Your task to perform on an android device: toggle improve location accuracy Image 0: 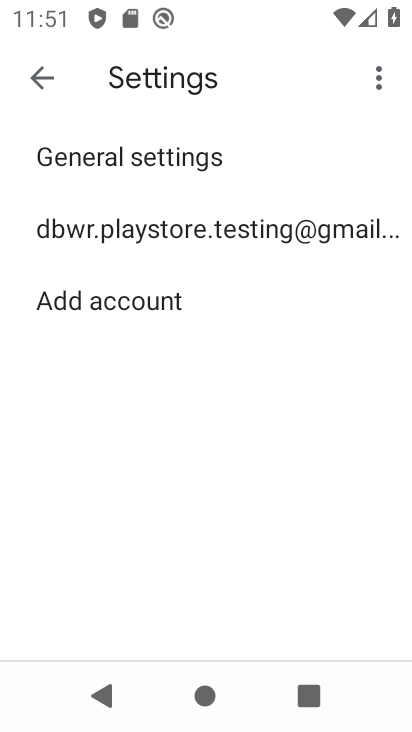
Step 0: press home button
Your task to perform on an android device: toggle improve location accuracy Image 1: 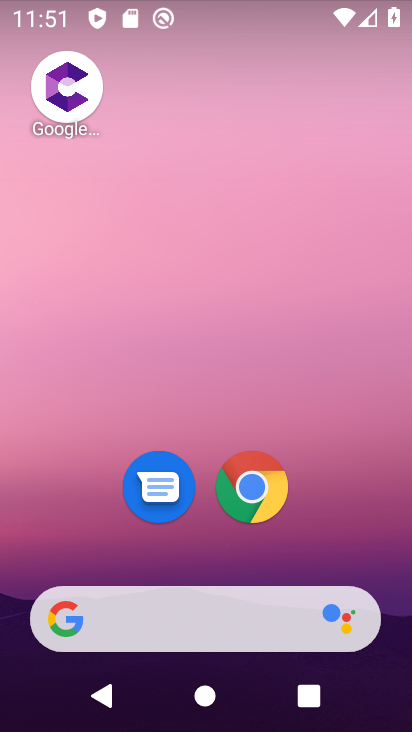
Step 1: drag from (204, 547) to (253, 11)
Your task to perform on an android device: toggle improve location accuracy Image 2: 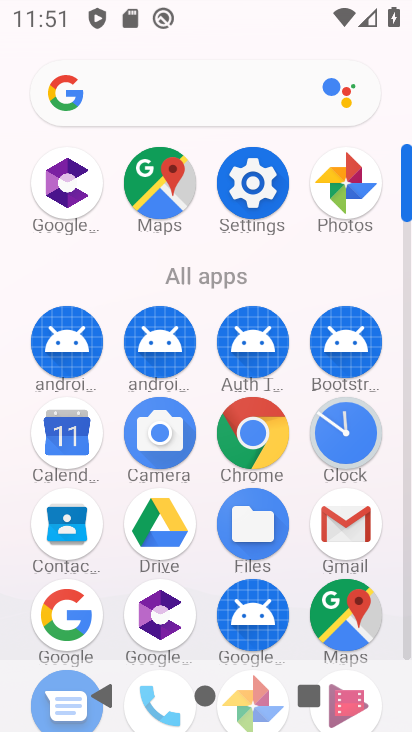
Step 2: click (257, 202)
Your task to perform on an android device: toggle improve location accuracy Image 3: 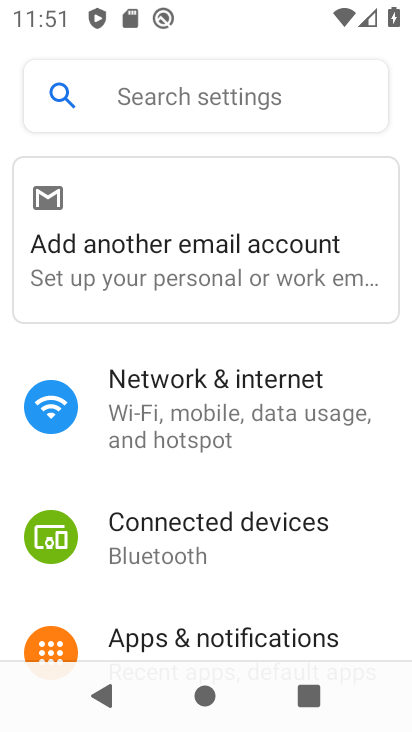
Step 3: drag from (193, 575) to (247, 133)
Your task to perform on an android device: toggle improve location accuracy Image 4: 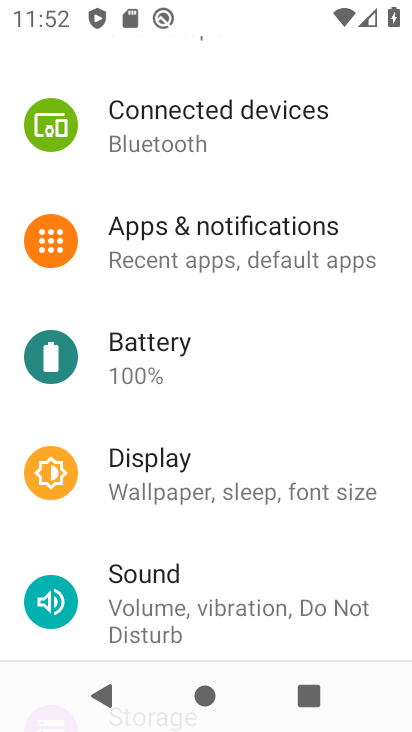
Step 4: drag from (200, 514) to (243, 176)
Your task to perform on an android device: toggle improve location accuracy Image 5: 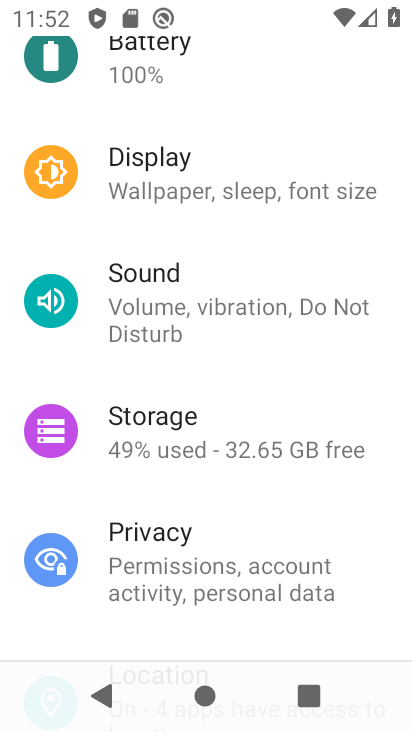
Step 5: drag from (206, 592) to (252, 191)
Your task to perform on an android device: toggle improve location accuracy Image 6: 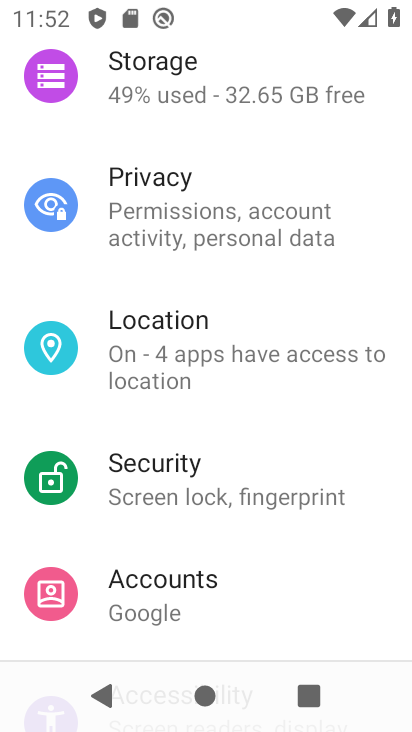
Step 6: click (204, 357)
Your task to perform on an android device: toggle improve location accuracy Image 7: 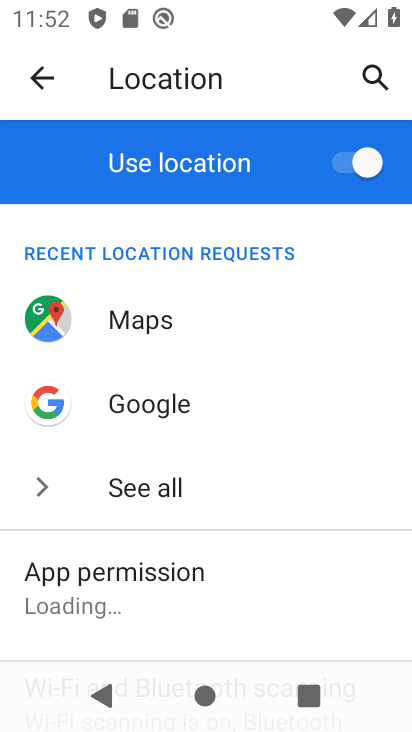
Step 7: drag from (204, 531) to (304, 21)
Your task to perform on an android device: toggle improve location accuracy Image 8: 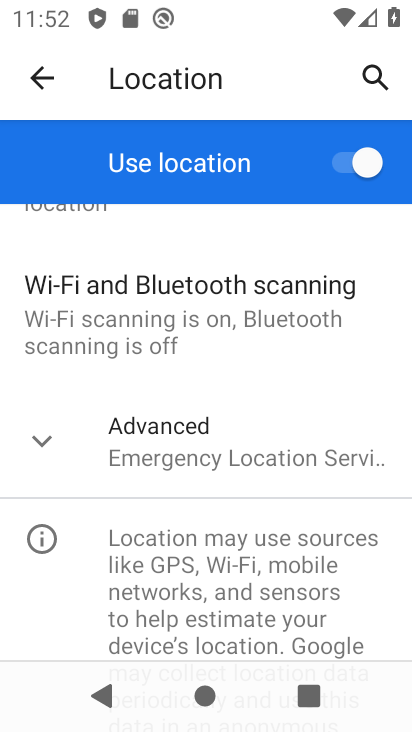
Step 8: click (40, 444)
Your task to perform on an android device: toggle improve location accuracy Image 9: 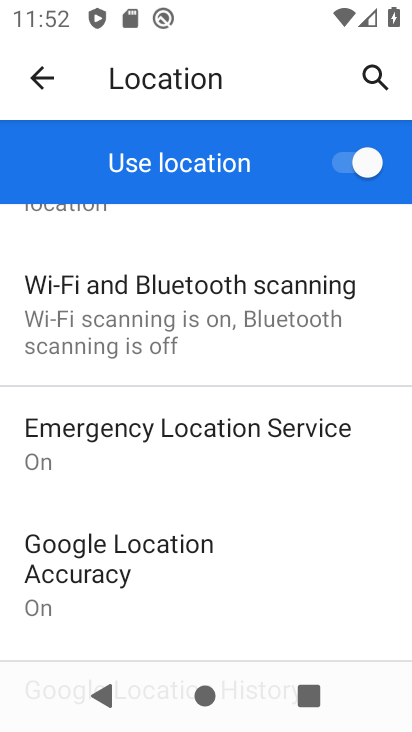
Step 9: drag from (191, 577) to (221, 275)
Your task to perform on an android device: toggle improve location accuracy Image 10: 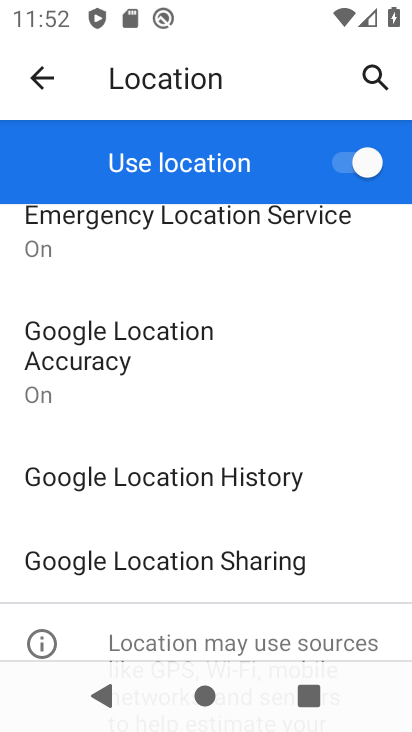
Step 10: drag from (233, 340) to (225, 465)
Your task to perform on an android device: toggle improve location accuracy Image 11: 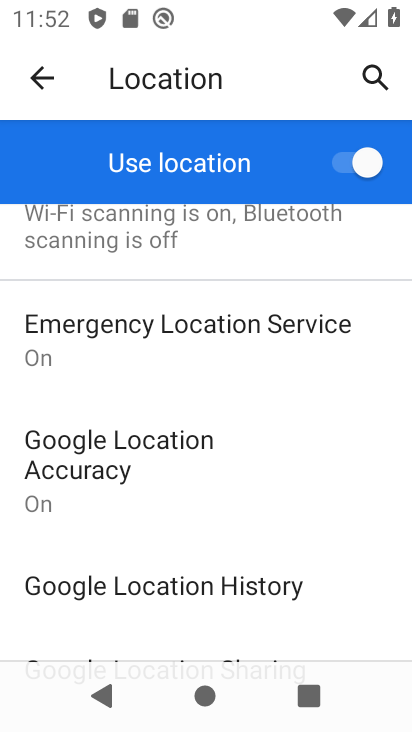
Step 11: click (102, 470)
Your task to perform on an android device: toggle improve location accuracy Image 12: 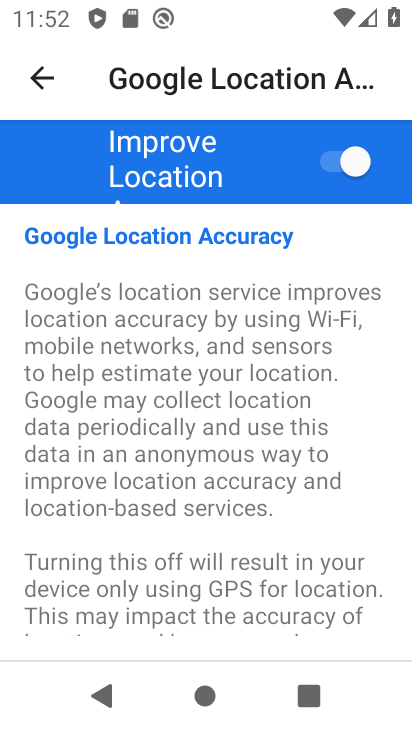
Step 12: click (347, 169)
Your task to perform on an android device: toggle improve location accuracy Image 13: 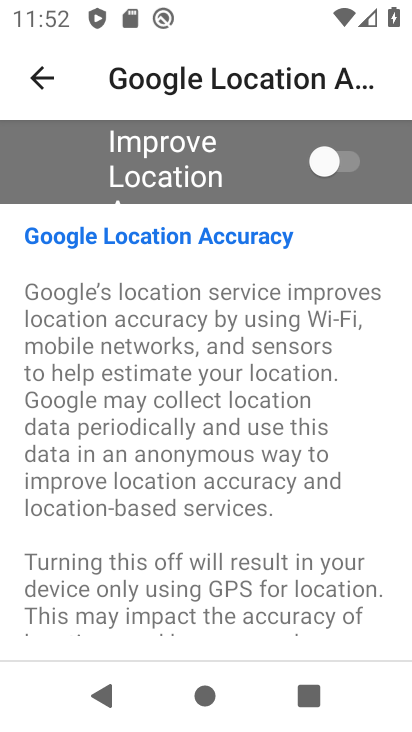
Step 13: task complete